Your task to perform on an android device: turn off improve location accuracy Image 0: 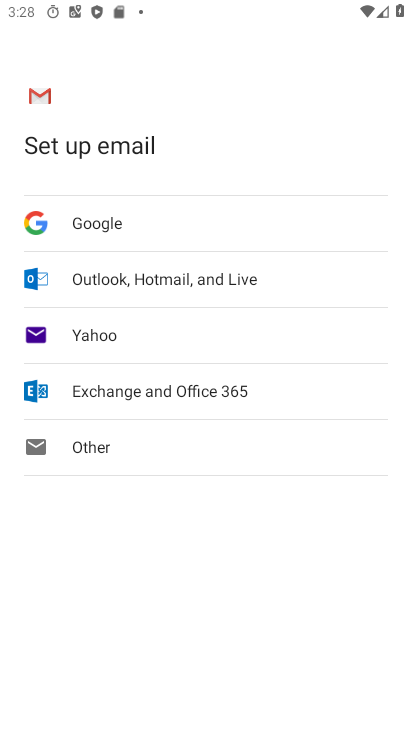
Step 0: press home button
Your task to perform on an android device: turn off improve location accuracy Image 1: 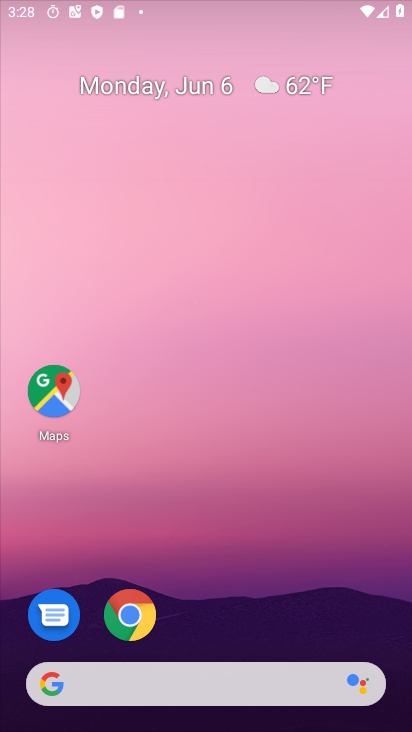
Step 1: drag from (251, 708) to (254, 30)
Your task to perform on an android device: turn off improve location accuracy Image 2: 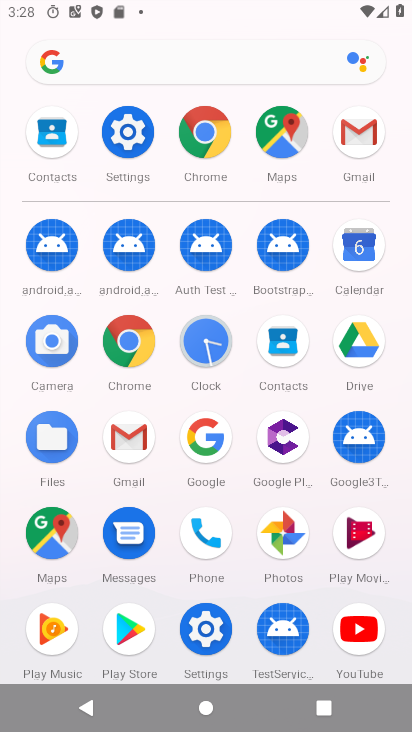
Step 2: click (121, 130)
Your task to perform on an android device: turn off improve location accuracy Image 3: 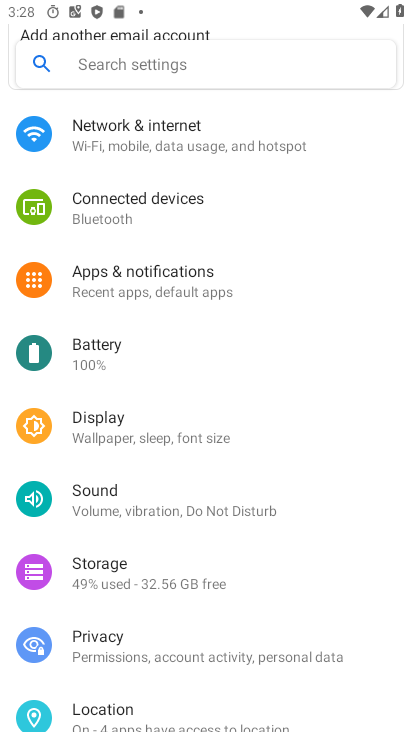
Step 3: click (127, 711)
Your task to perform on an android device: turn off improve location accuracy Image 4: 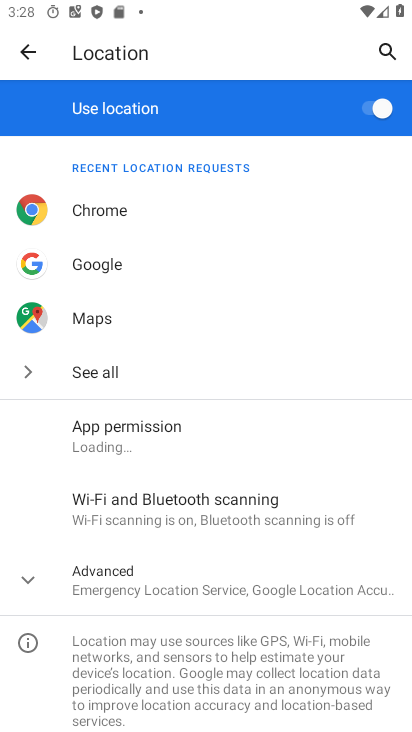
Step 4: click (194, 599)
Your task to perform on an android device: turn off improve location accuracy Image 5: 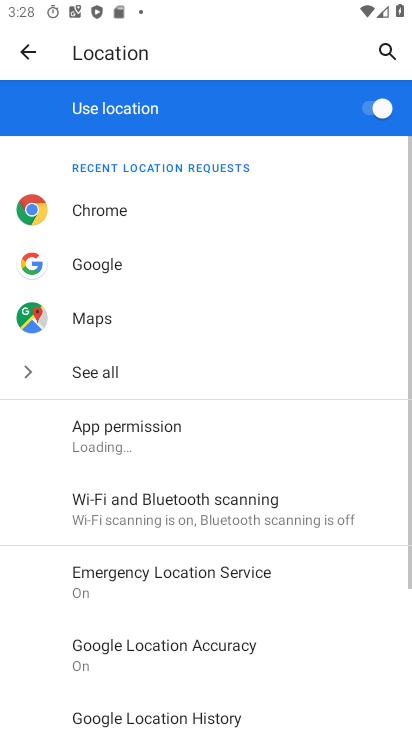
Step 5: drag from (218, 601) to (267, 268)
Your task to perform on an android device: turn off improve location accuracy Image 6: 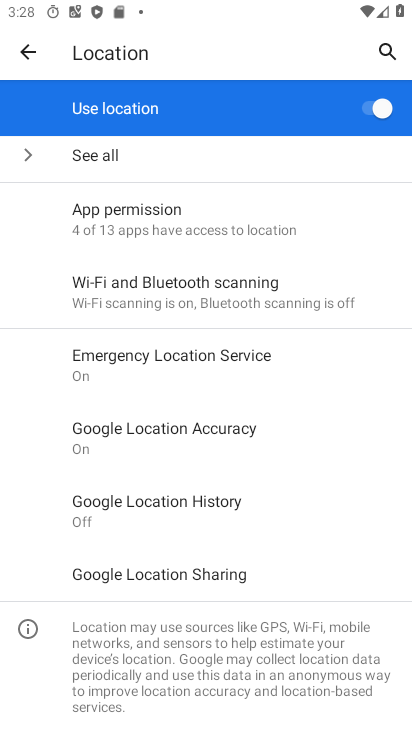
Step 6: click (215, 437)
Your task to perform on an android device: turn off improve location accuracy Image 7: 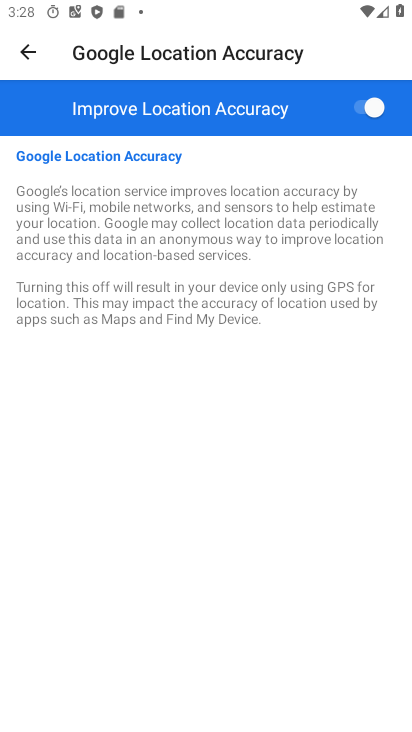
Step 7: click (353, 108)
Your task to perform on an android device: turn off improve location accuracy Image 8: 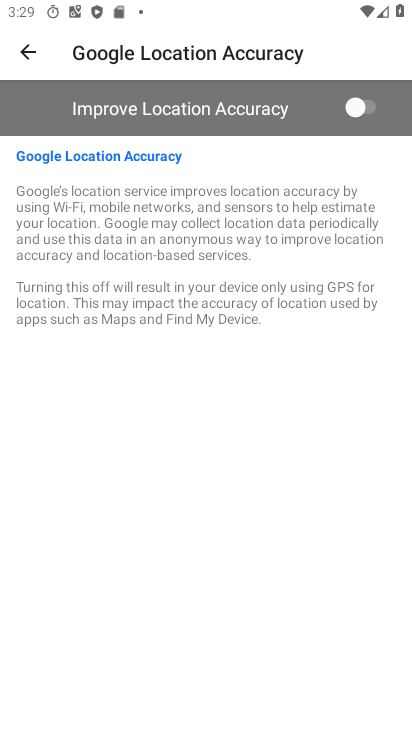
Step 8: task complete